Your task to perform on an android device: Turn on the flashlight Image 0: 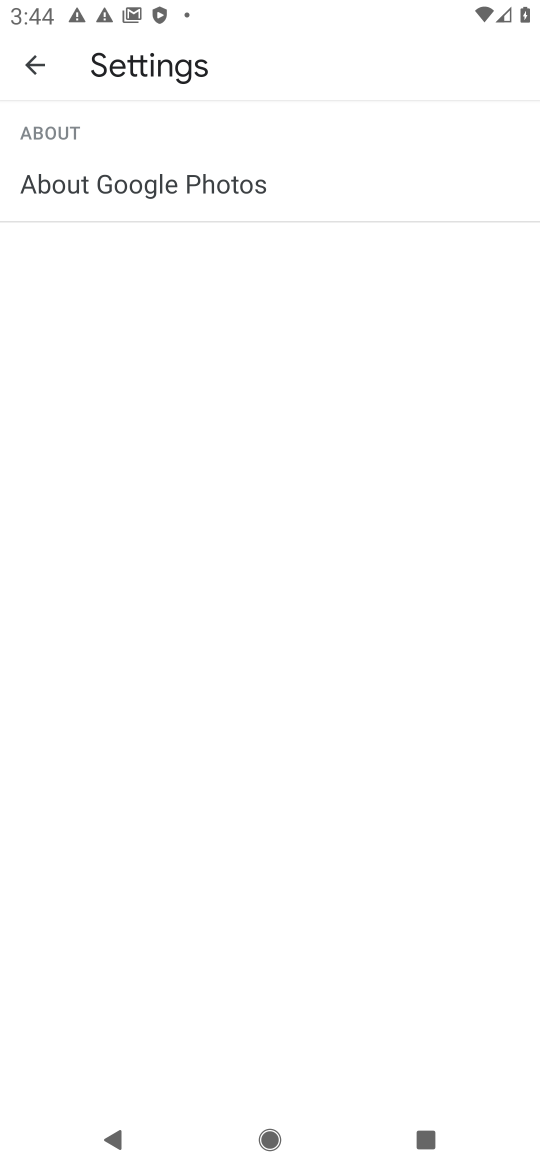
Step 0: press home button
Your task to perform on an android device: Turn on the flashlight Image 1: 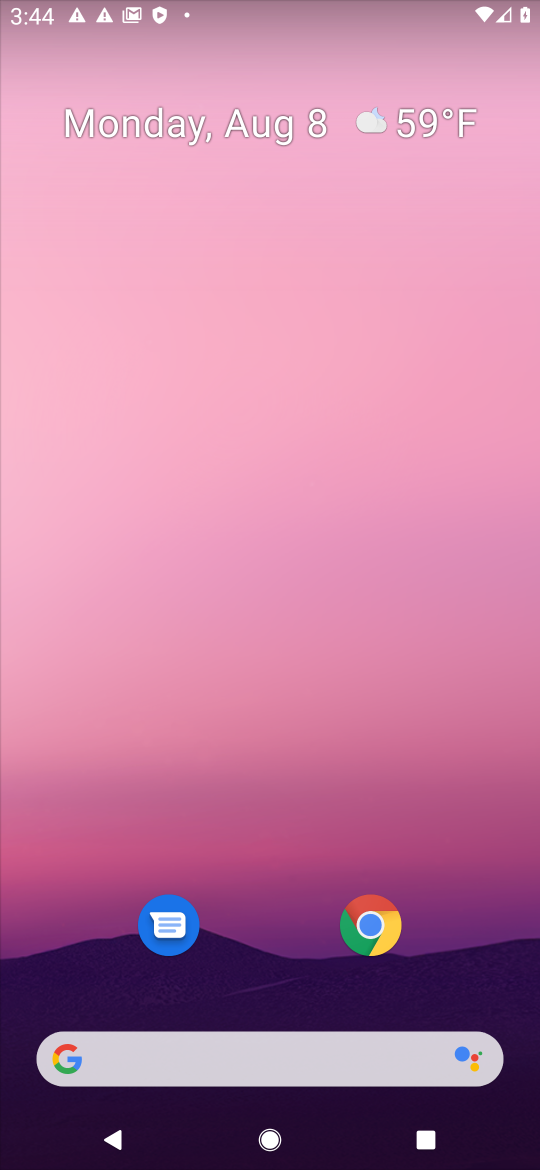
Step 1: drag from (263, 905) to (261, 301)
Your task to perform on an android device: Turn on the flashlight Image 2: 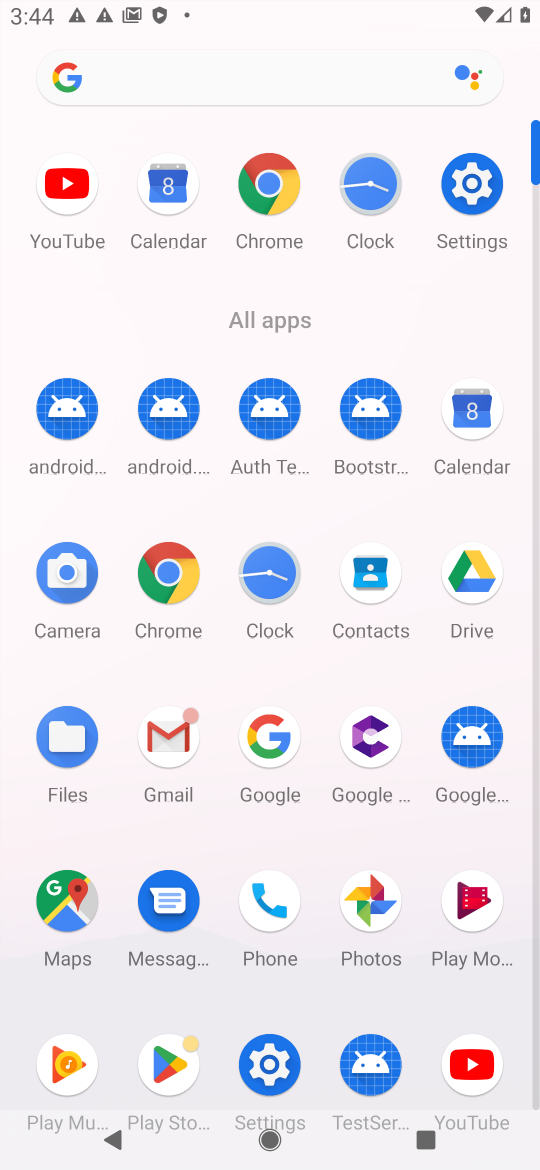
Step 2: click (263, 1065)
Your task to perform on an android device: Turn on the flashlight Image 3: 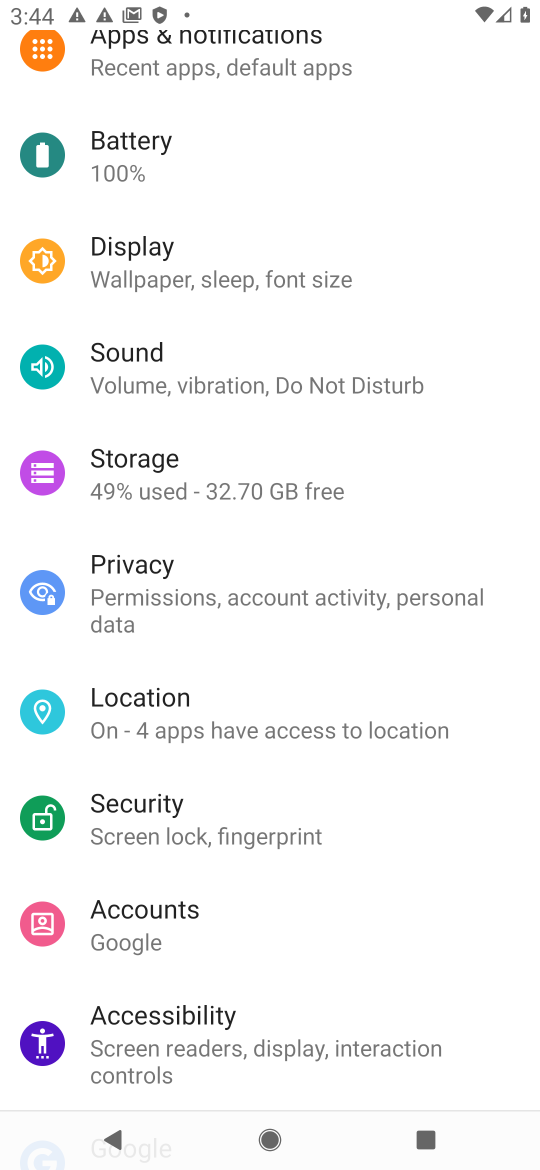
Step 3: click (272, 260)
Your task to perform on an android device: Turn on the flashlight Image 4: 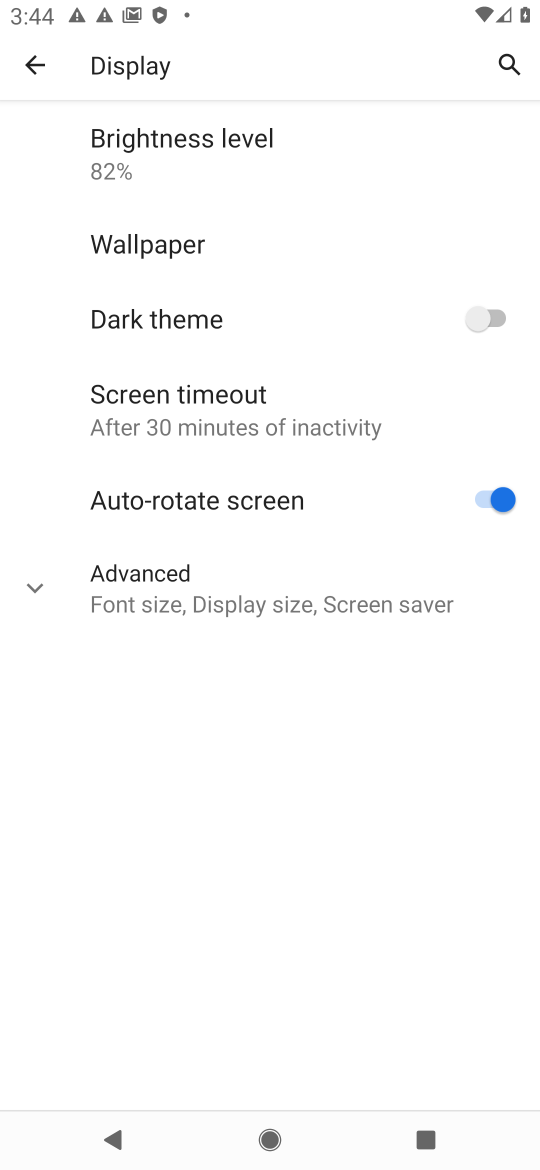
Step 4: click (38, 61)
Your task to perform on an android device: Turn on the flashlight Image 5: 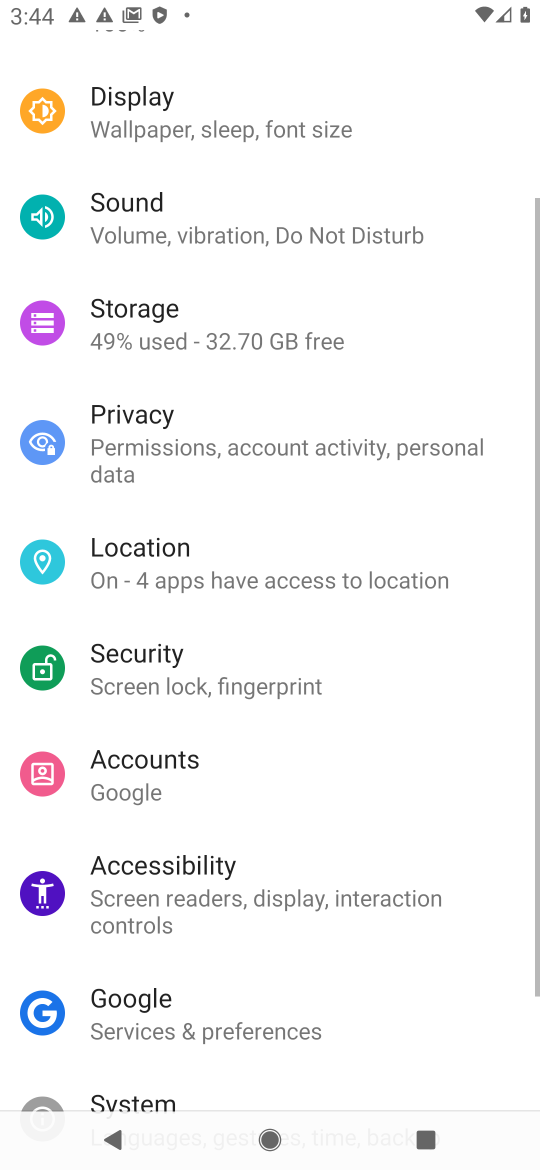
Step 5: task complete